Your task to perform on an android device: Go to calendar. Show me events next week Image 0: 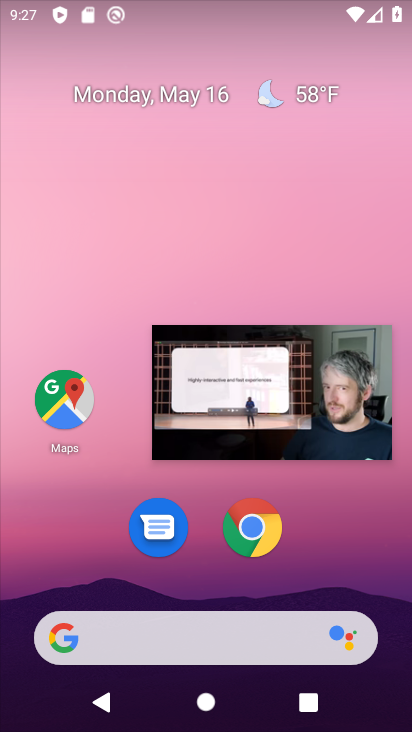
Step 0: click (289, 368)
Your task to perform on an android device: Go to calendar. Show me events next week Image 1: 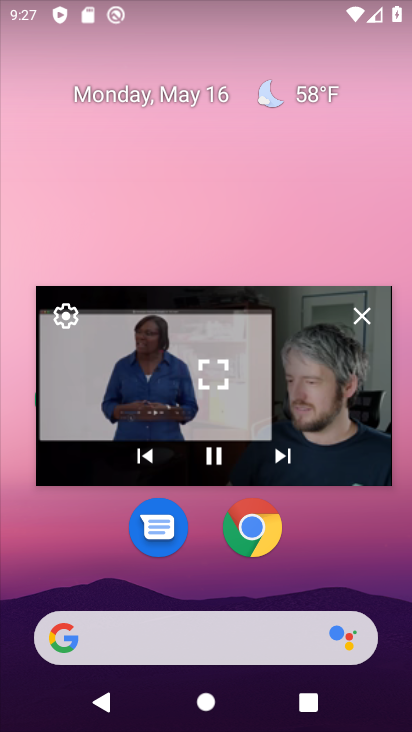
Step 1: click (263, 391)
Your task to perform on an android device: Go to calendar. Show me events next week Image 2: 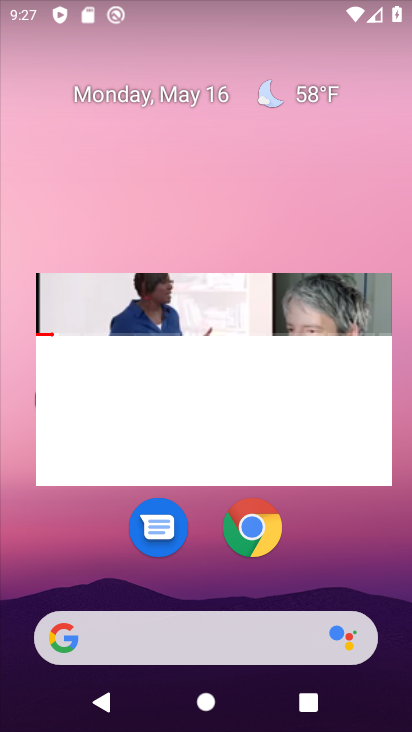
Step 2: click (360, 316)
Your task to perform on an android device: Go to calendar. Show me events next week Image 3: 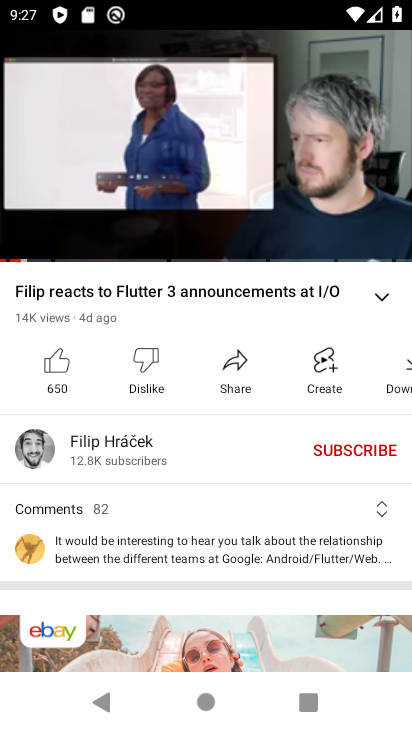
Step 3: drag from (276, 628) to (246, 366)
Your task to perform on an android device: Go to calendar. Show me events next week Image 4: 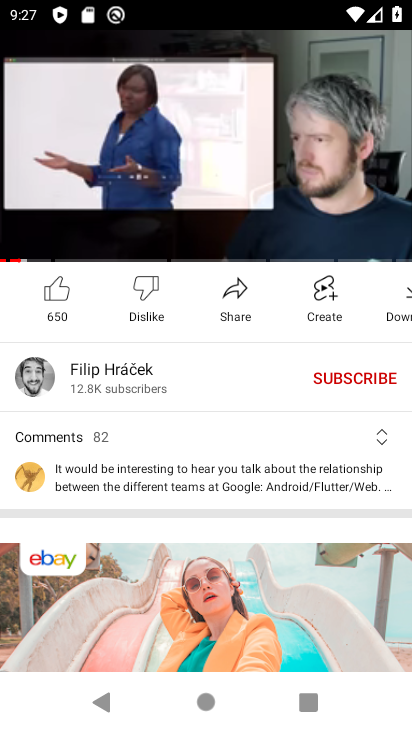
Step 4: click (267, 341)
Your task to perform on an android device: Go to calendar. Show me events next week Image 5: 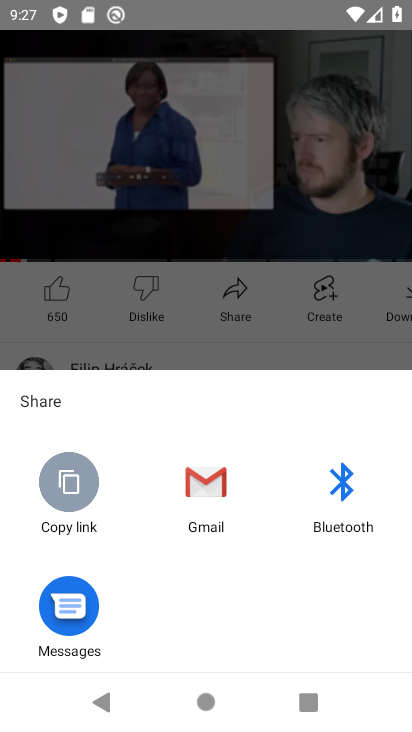
Step 5: task complete